Your task to perform on an android device: turn off location Image 0: 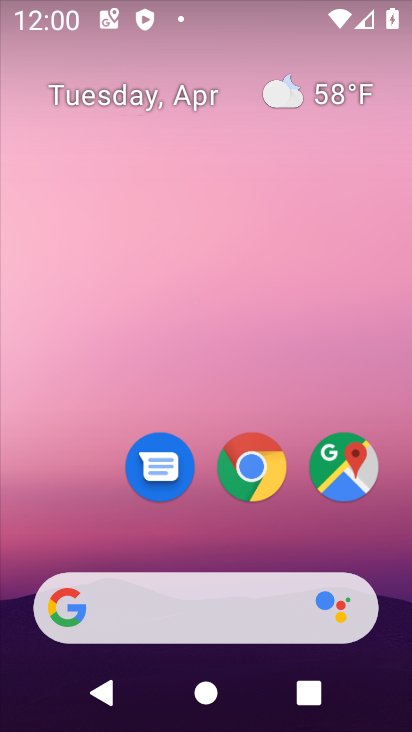
Step 0: drag from (247, 10) to (189, 599)
Your task to perform on an android device: turn off location Image 1: 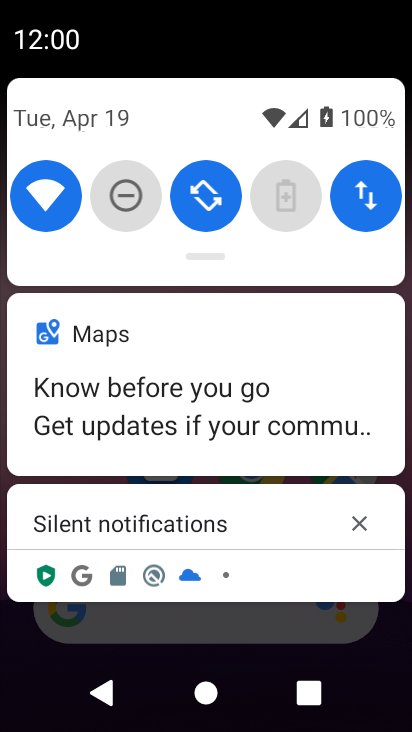
Step 1: drag from (185, 107) to (242, 658)
Your task to perform on an android device: turn off location Image 2: 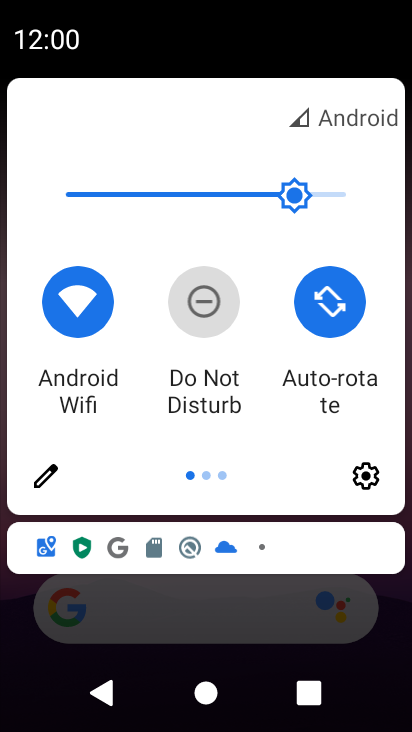
Step 2: click (378, 467)
Your task to perform on an android device: turn off location Image 3: 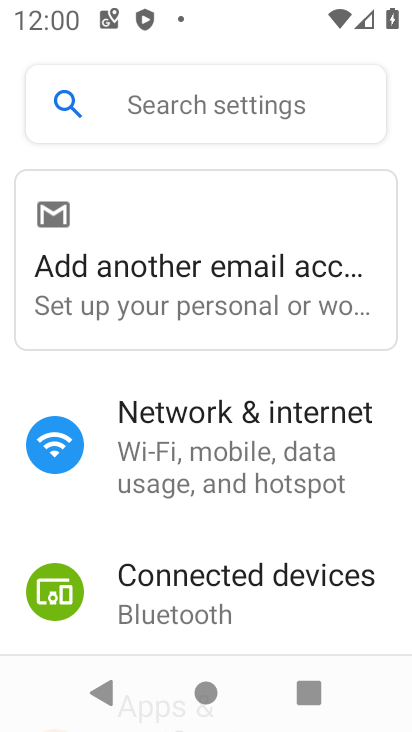
Step 3: drag from (188, 621) to (258, 9)
Your task to perform on an android device: turn off location Image 4: 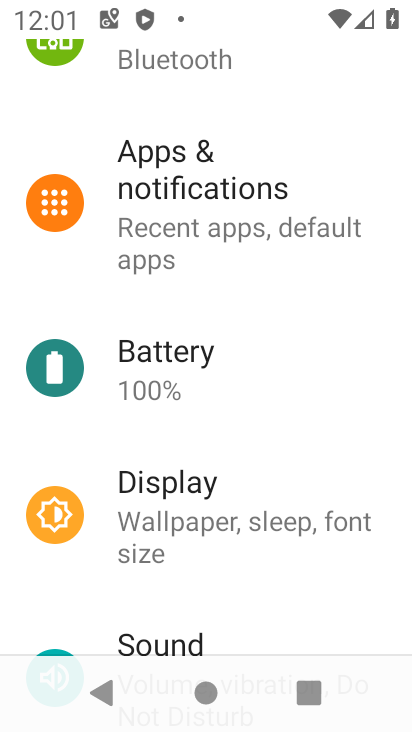
Step 4: drag from (151, 599) to (196, 81)
Your task to perform on an android device: turn off location Image 5: 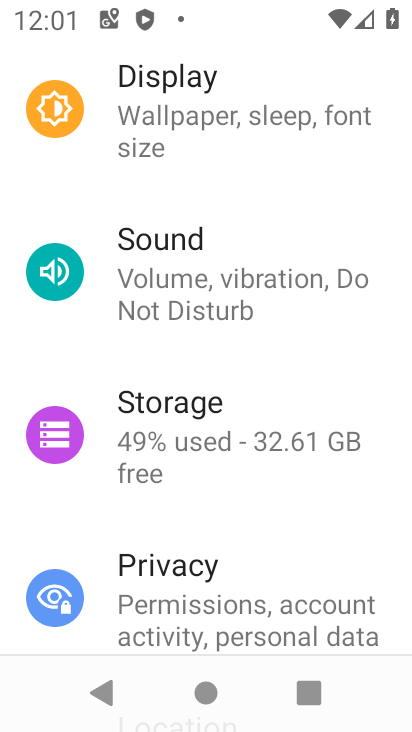
Step 5: drag from (151, 68) to (184, 532)
Your task to perform on an android device: turn off location Image 6: 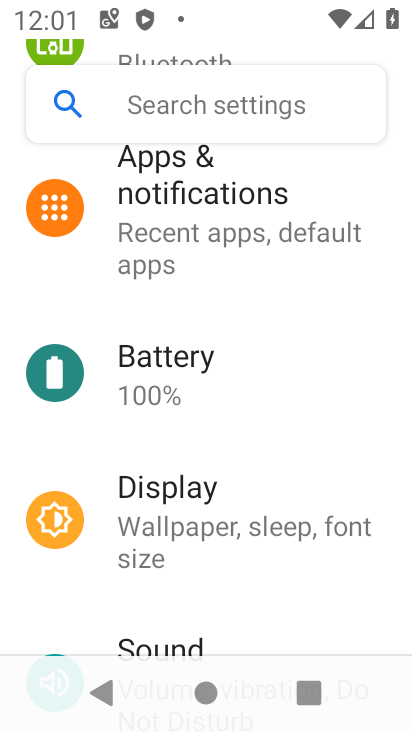
Step 6: drag from (205, 205) to (275, 650)
Your task to perform on an android device: turn off location Image 7: 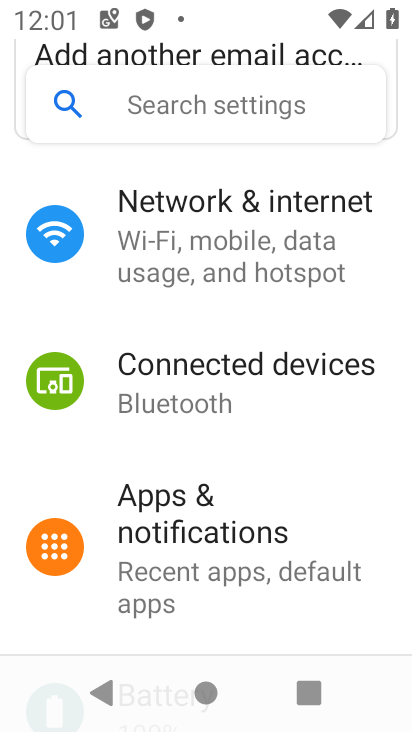
Step 7: drag from (202, 184) to (230, 575)
Your task to perform on an android device: turn off location Image 8: 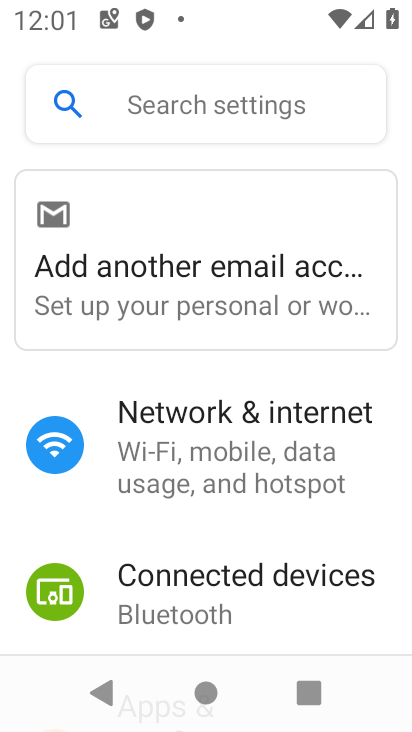
Step 8: drag from (161, 565) to (208, 102)
Your task to perform on an android device: turn off location Image 9: 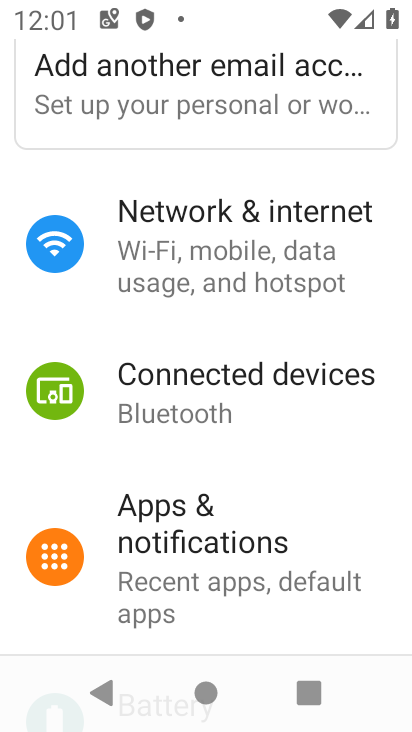
Step 9: drag from (225, 580) to (303, 106)
Your task to perform on an android device: turn off location Image 10: 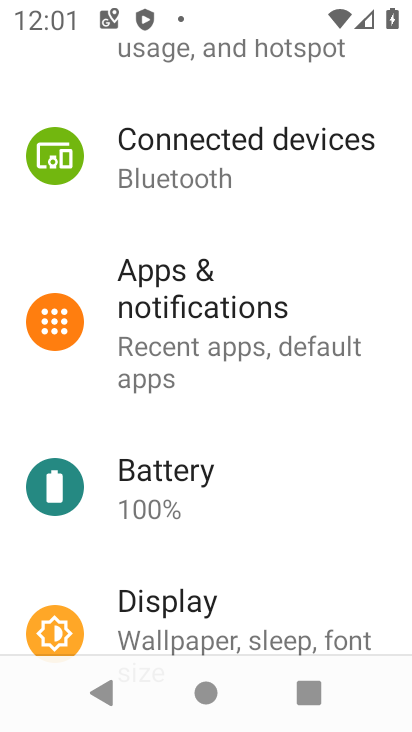
Step 10: drag from (154, 588) to (193, 70)
Your task to perform on an android device: turn off location Image 11: 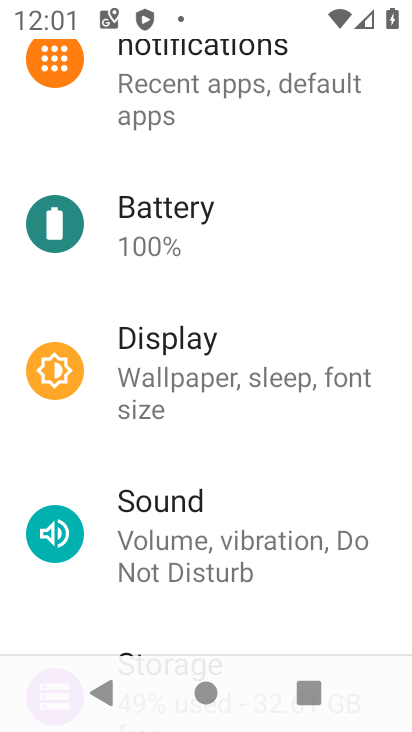
Step 11: drag from (137, 551) to (215, 22)
Your task to perform on an android device: turn off location Image 12: 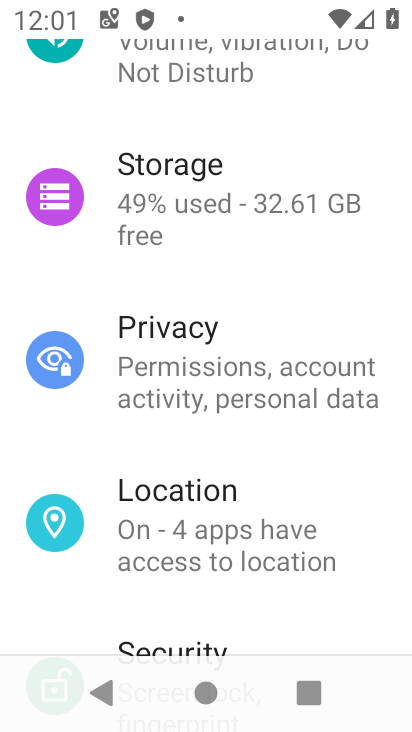
Step 12: click (154, 484)
Your task to perform on an android device: turn off location Image 13: 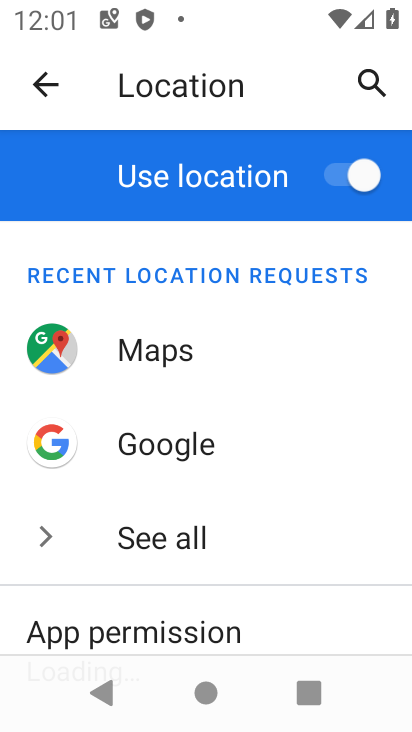
Step 13: click (349, 180)
Your task to perform on an android device: turn off location Image 14: 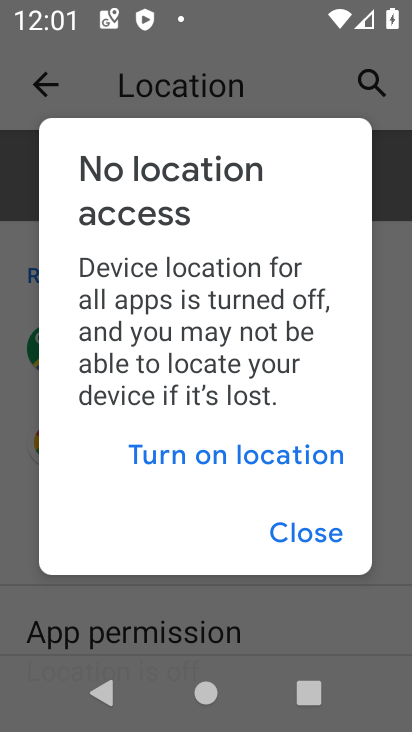
Step 14: task complete